Your task to perform on an android device: toggle show notifications on the lock screen Image 0: 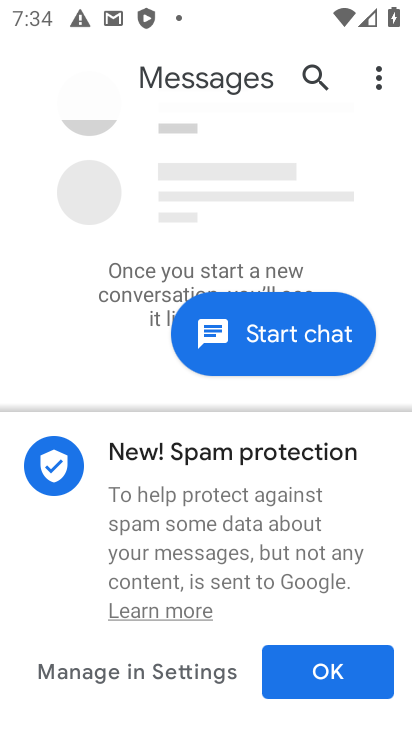
Step 0: press home button
Your task to perform on an android device: toggle show notifications on the lock screen Image 1: 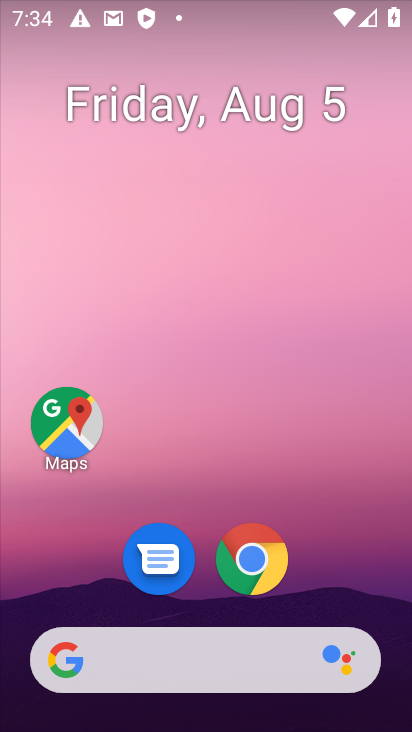
Step 1: drag from (193, 579) to (166, 13)
Your task to perform on an android device: toggle show notifications on the lock screen Image 2: 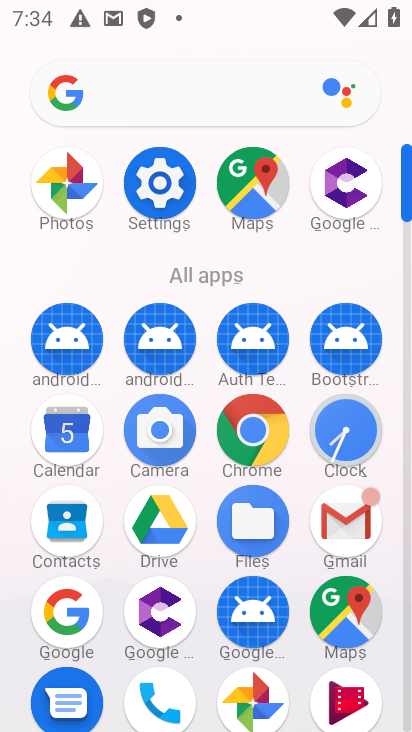
Step 2: click (170, 186)
Your task to perform on an android device: toggle show notifications on the lock screen Image 3: 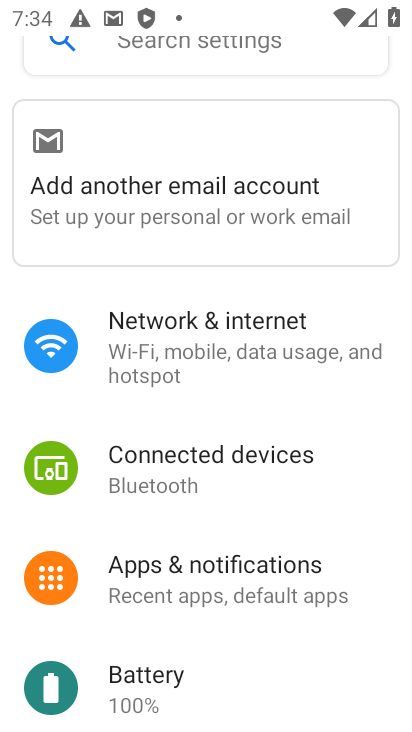
Step 3: click (213, 598)
Your task to perform on an android device: toggle show notifications on the lock screen Image 4: 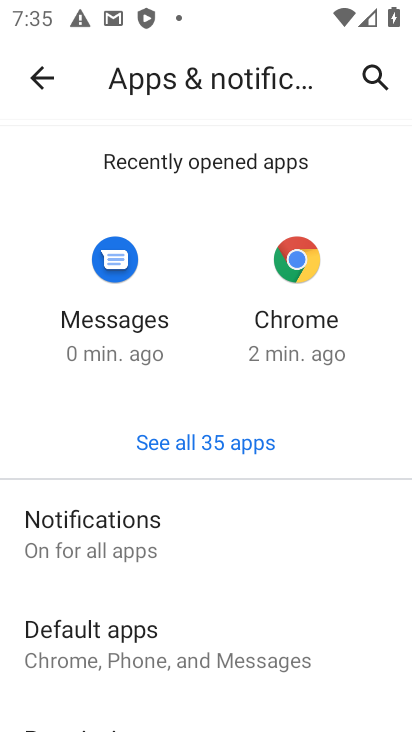
Step 4: drag from (155, 572) to (154, 101)
Your task to perform on an android device: toggle show notifications on the lock screen Image 5: 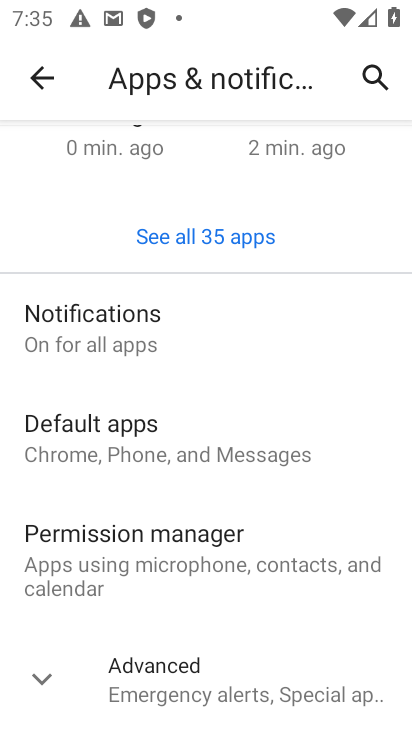
Step 5: click (90, 349)
Your task to perform on an android device: toggle show notifications on the lock screen Image 6: 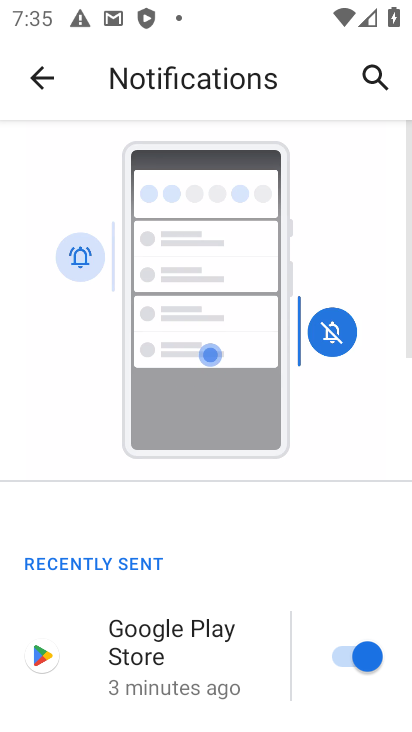
Step 6: drag from (168, 656) to (156, 97)
Your task to perform on an android device: toggle show notifications on the lock screen Image 7: 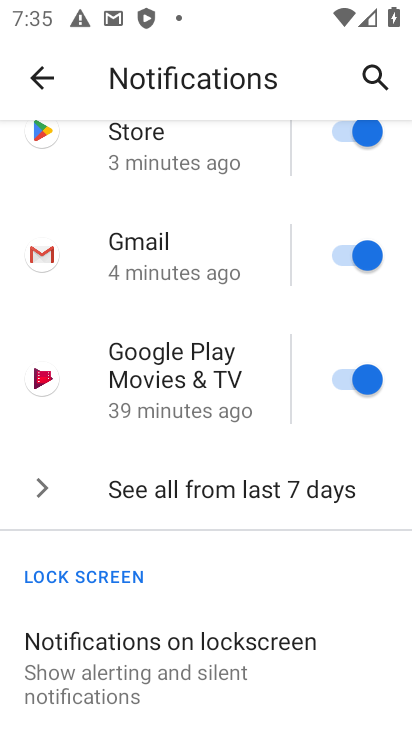
Step 7: click (126, 681)
Your task to perform on an android device: toggle show notifications on the lock screen Image 8: 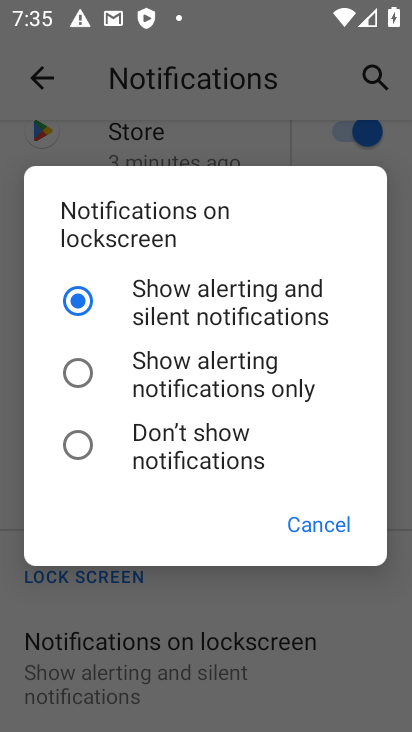
Step 8: click (71, 454)
Your task to perform on an android device: toggle show notifications on the lock screen Image 9: 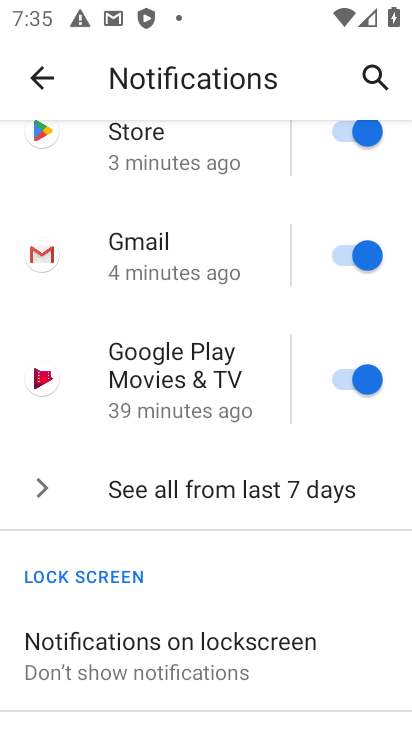
Step 9: task complete